Your task to perform on an android device: empty trash in google photos Image 0: 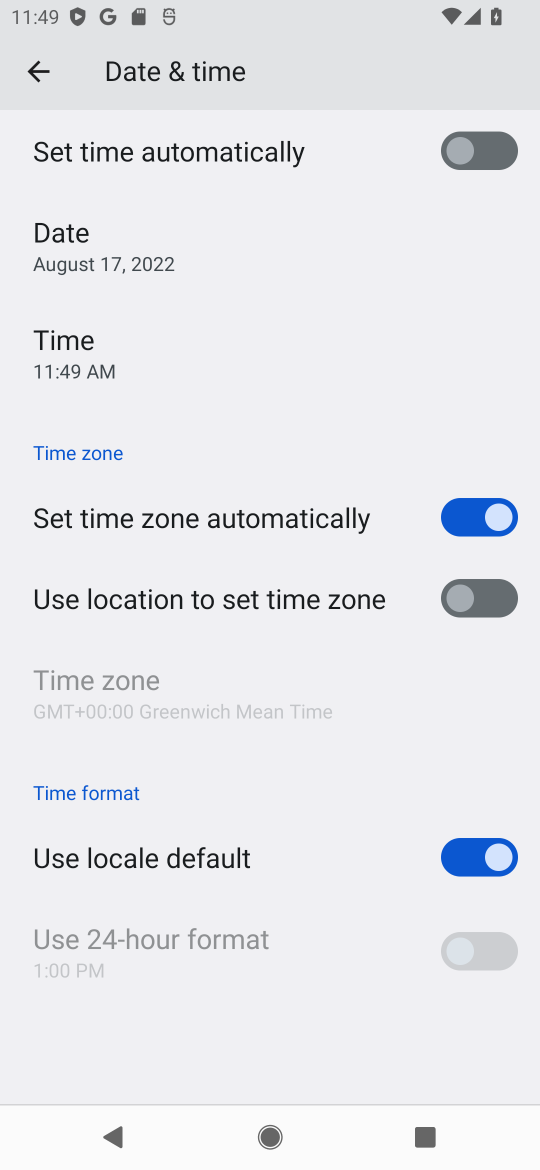
Step 0: press home button
Your task to perform on an android device: empty trash in google photos Image 1: 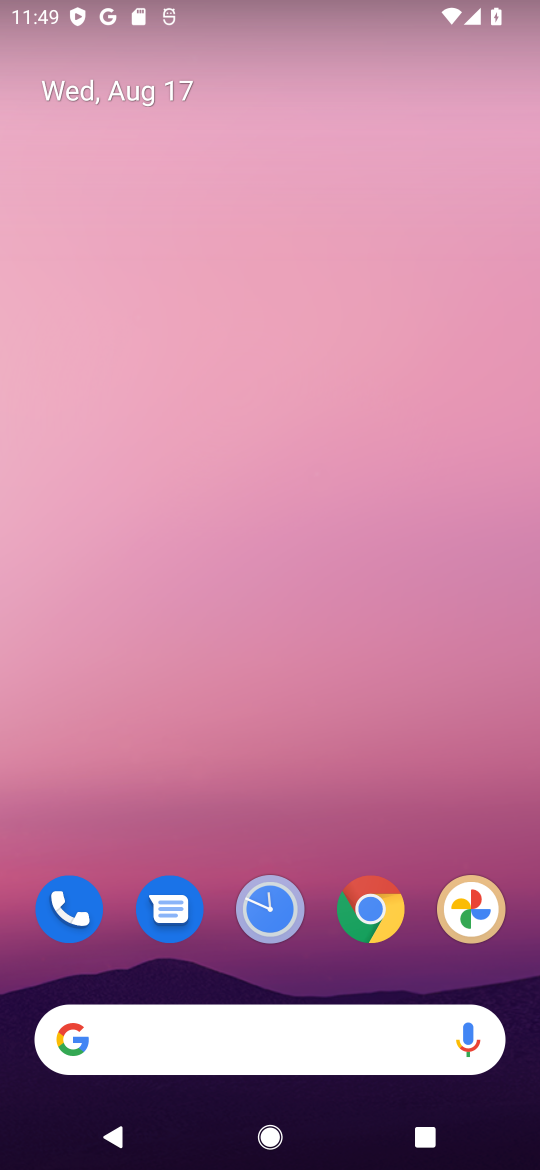
Step 1: click (470, 905)
Your task to perform on an android device: empty trash in google photos Image 2: 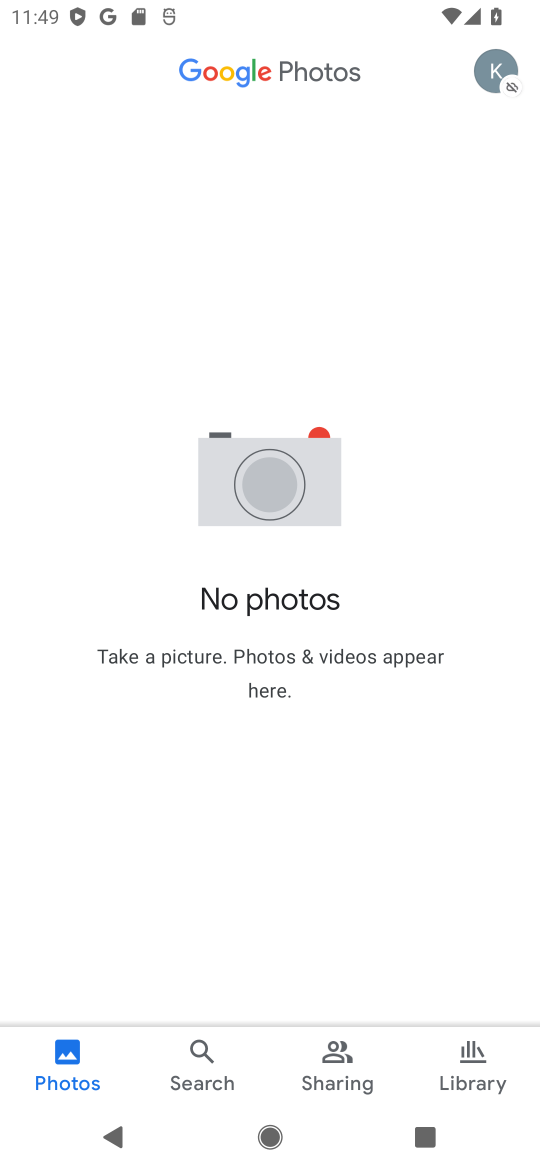
Step 2: click (473, 1065)
Your task to perform on an android device: empty trash in google photos Image 3: 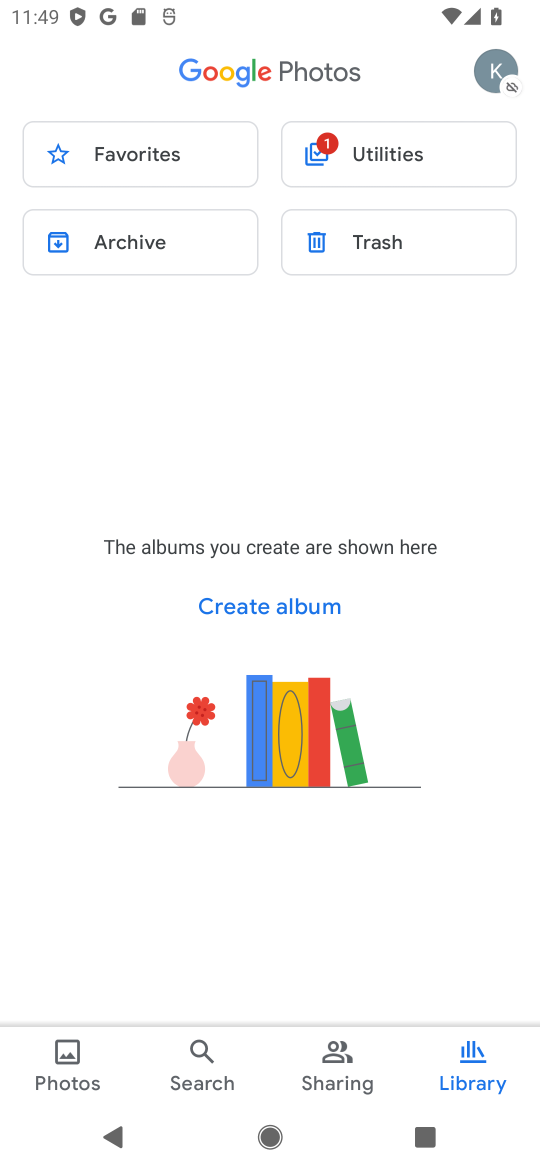
Step 3: click (381, 228)
Your task to perform on an android device: empty trash in google photos Image 4: 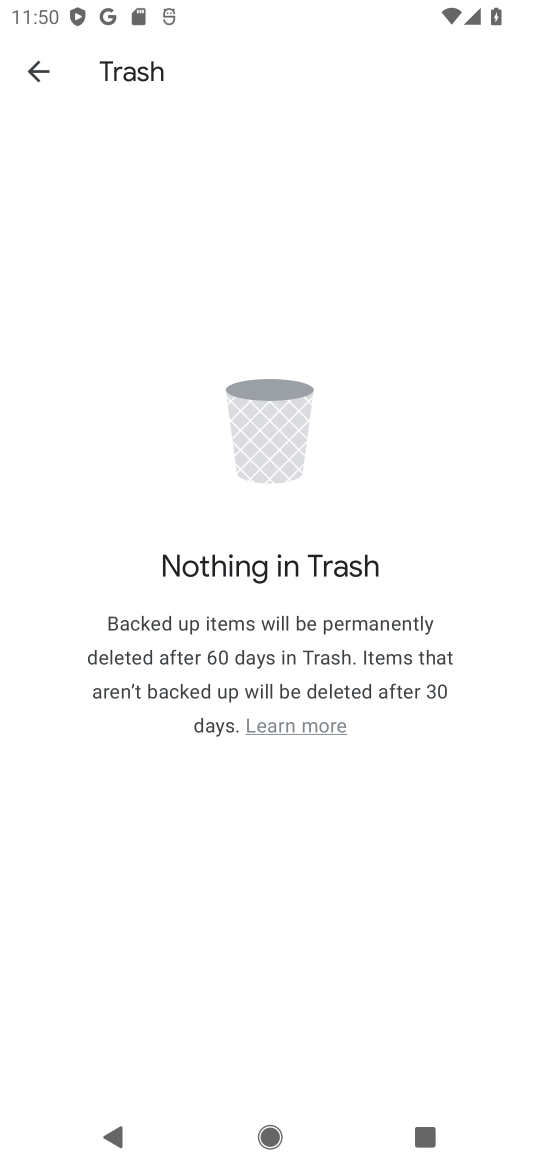
Step 4: task complete